Your task to perform on an android device: manage bookmarks in the chrome app Image 0: 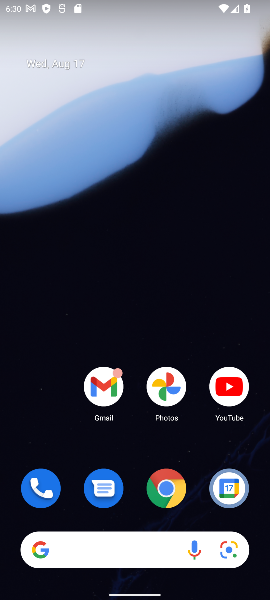
Step 0: drag from (81, 420) to (77, 81)
Your task to perform on an android device: manage bookmarks in the chrome app Image 1: 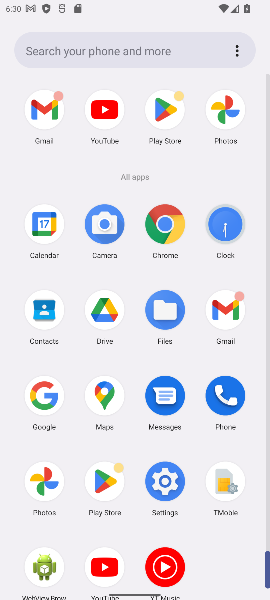
Step 1: click (166, 224)
Your task to perform on an android device: manage bookmarks in the chrome app Image 2: 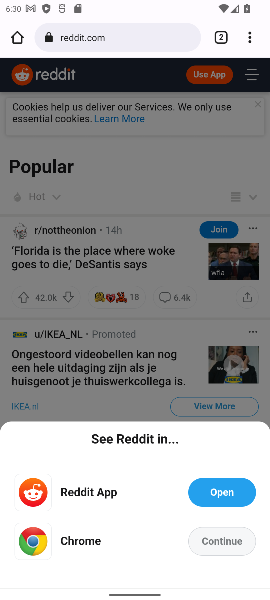
Step 2: drag from (245, 38) to (162, 266)
Your task to perform on an android device: manage bookmarks in the chrome app Image 3: 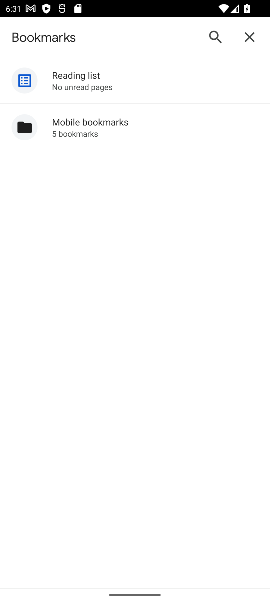
Step 3: click (62, 132)
Your task to perform on an android device: manage bookmarks in the chrome app Image 4: 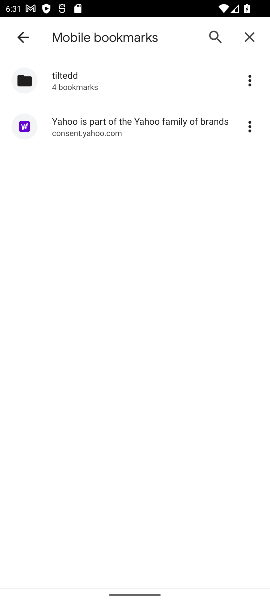
Step 4: click (253, 82)
Your task to perform on an android device: manage bookmarks in the chrome app Image 5: 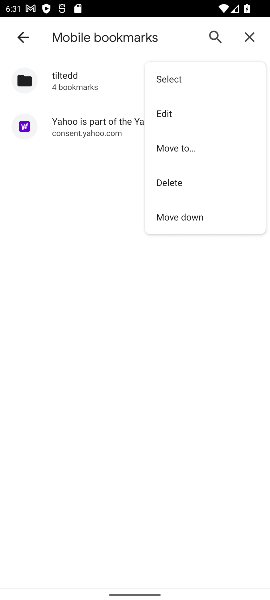
Step 5: click (178, 181)
Your task to perform on an android device: manage bookmarks in the chrome app Image 6: 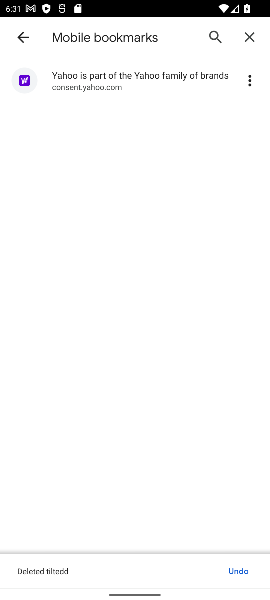
Step 6: task complete